Your task to perform on an android device: Add "bose soundlink" to the cart on walmart Image 0: 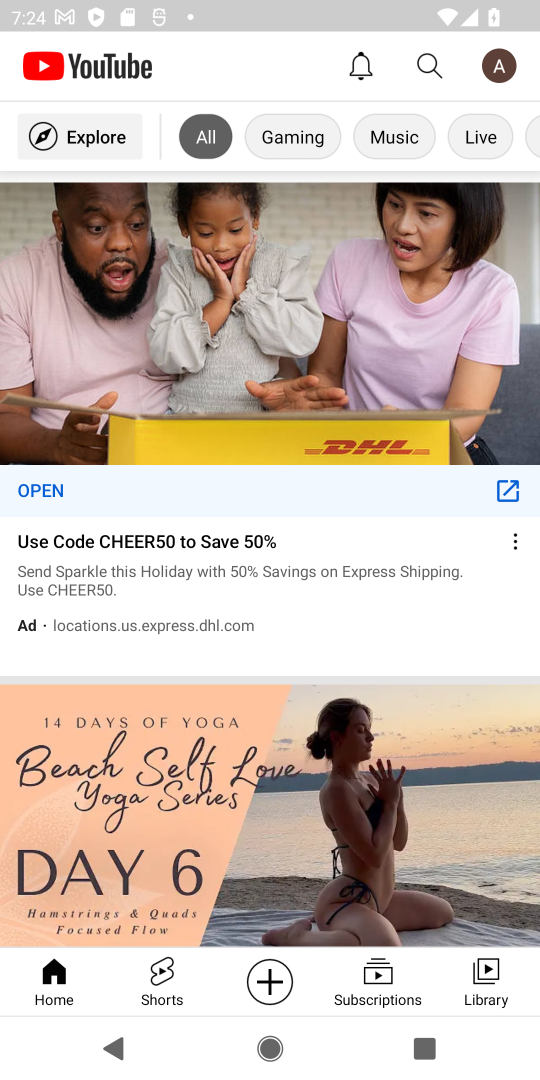
Step 0: press home button
Your task to perform on an android device: Add "bose soundlink" to the cart on walmart Image 1: 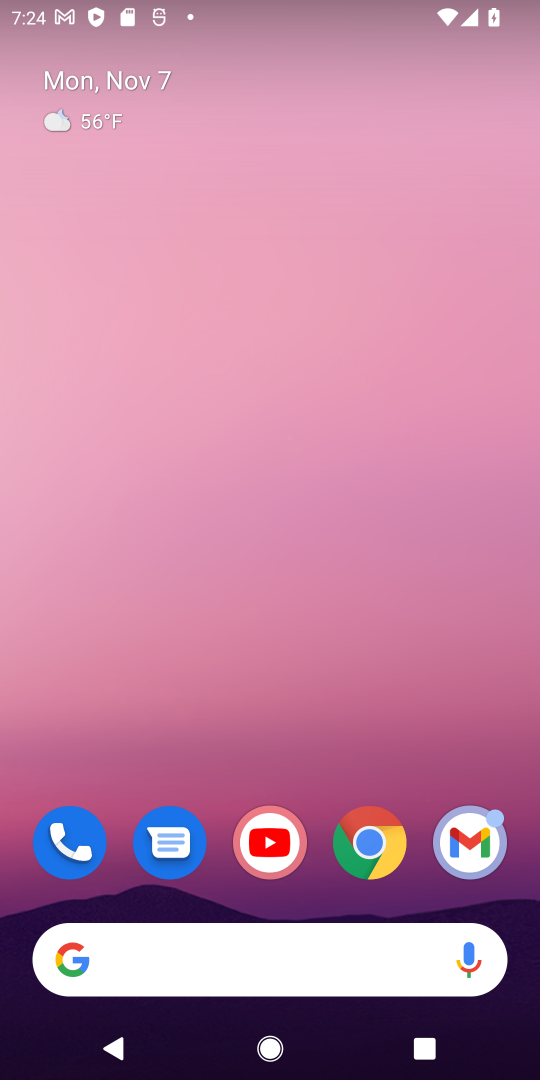
Step 1: click (371, 844)
Your task to perform on an android device: Add "bose soundlink" to the cart on walmart Image 2: 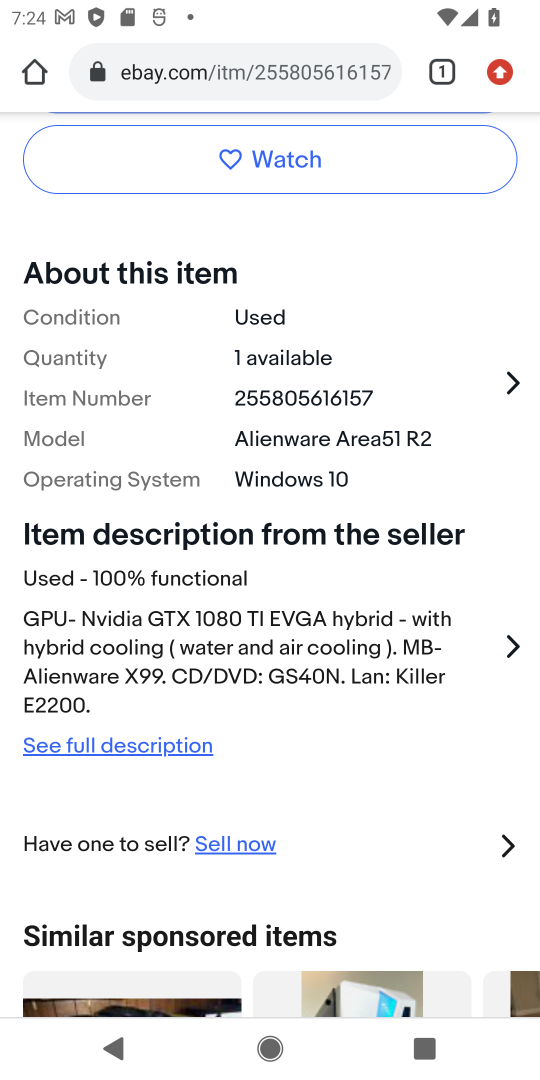
Step 2: click (279, 57)
Your task to perform on an android device: Add "bose soundlink" to the cart on walmart Image 3: 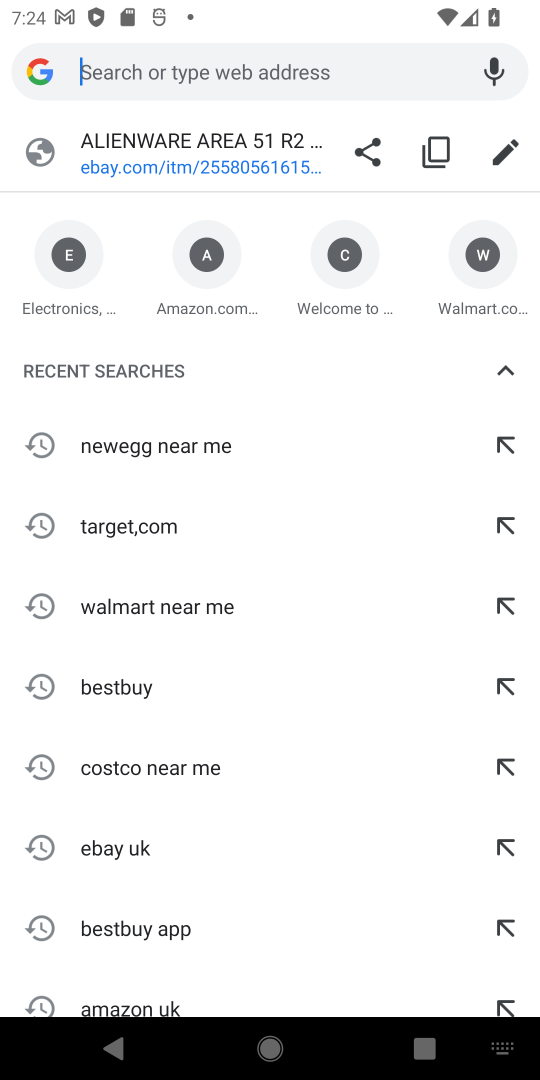
Step 3: click (450, 306)
Your task to perform on an android device: Add "bose soundlink" to the cart on walmart Image 4: 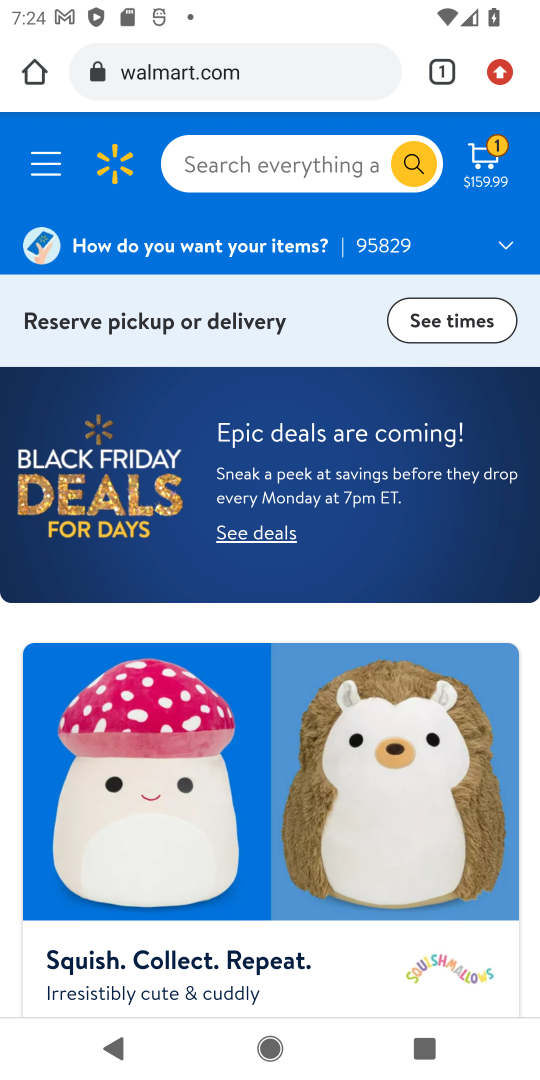
Step 4: click (231, 163)
Your task to perform on an android device: Add "bose soundlink" to the cart on walmart Image 5: 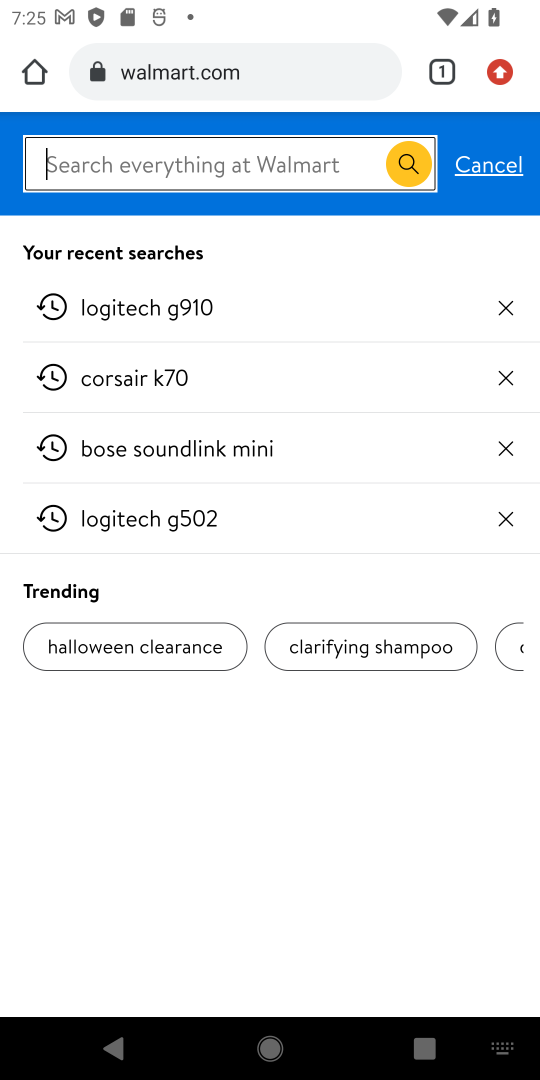
Step 5: type "bose soundlink"
Your task to perform on an android device: Add "bose soundlink" to the cart on walmart Image 6: 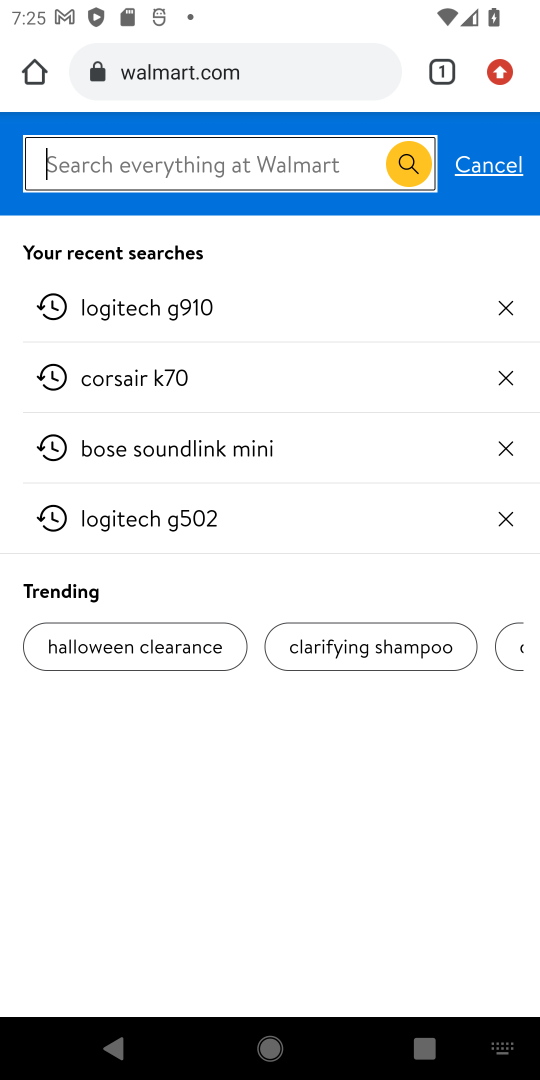
Step 6: press enter
Your task to perform on an android device: Add "bose soundlink" to the cart on walmart Image 7: 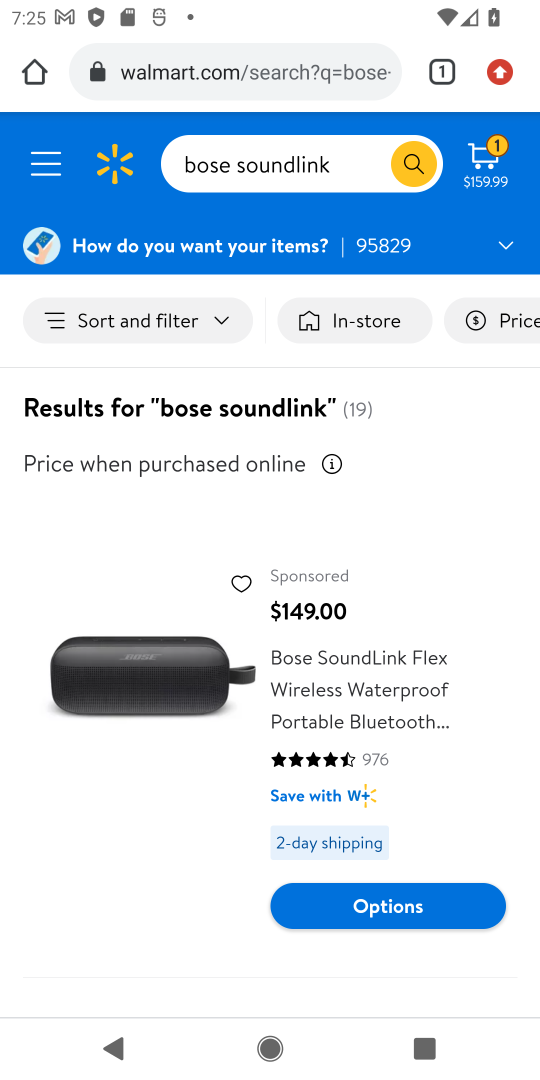
Step 7: click (289, 675)
Your task to perform on an android device: Add "bose soundlink" to the cart on walmart Image 8: 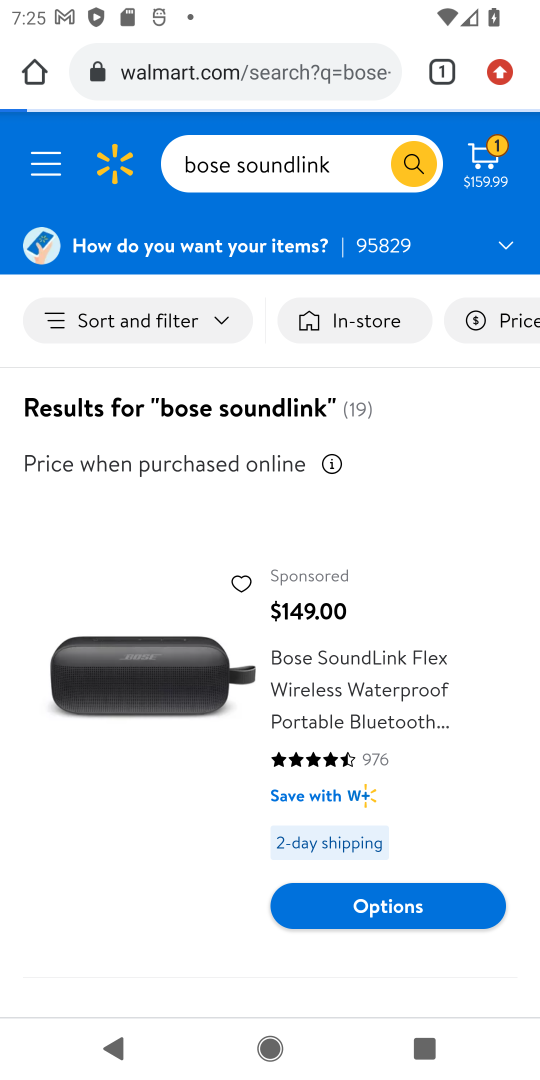
Step 8: click (339, 666)
Your task to perform on an android device: Add "bose soundlink" to the cart on walmart Image 9: 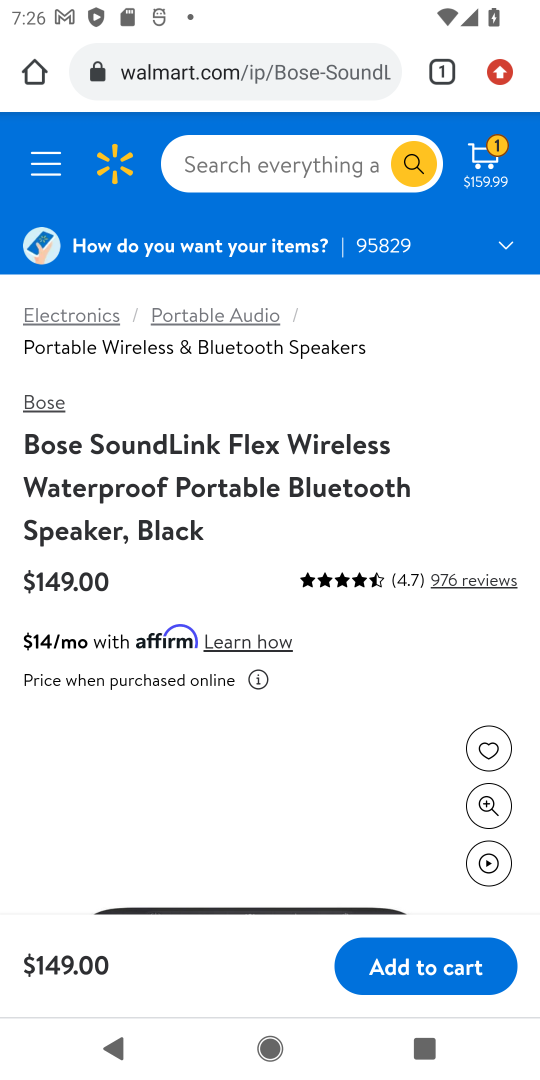
Step 9: click (414, 970)
Your task to perform on an android device: Add "bose soundlink" to the cart on walmart Image 10: 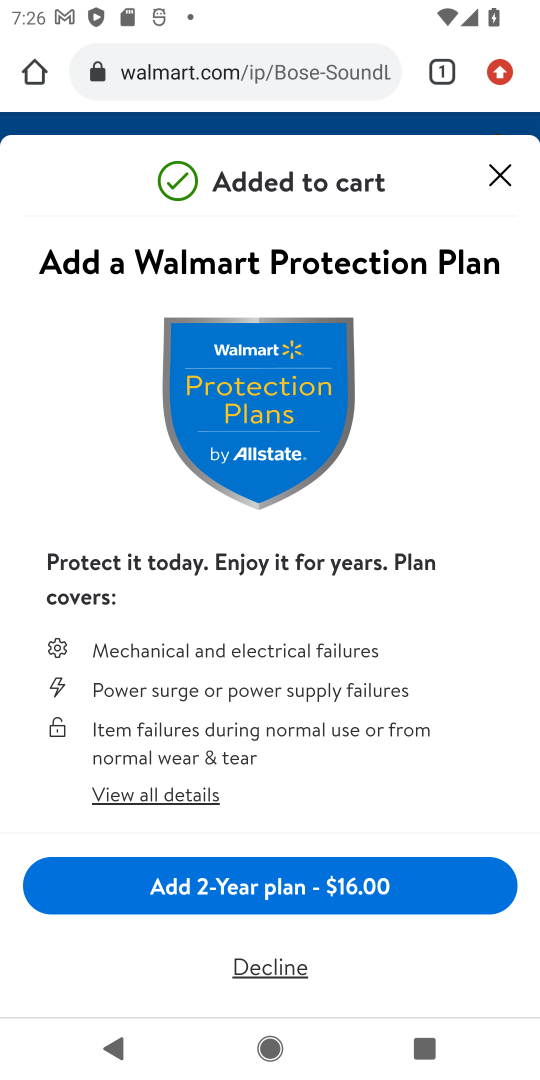
Step 10: click (505, 169)
Your task to perform on an android device: Add "bose soundlink" to the cart on walmart Image 11: 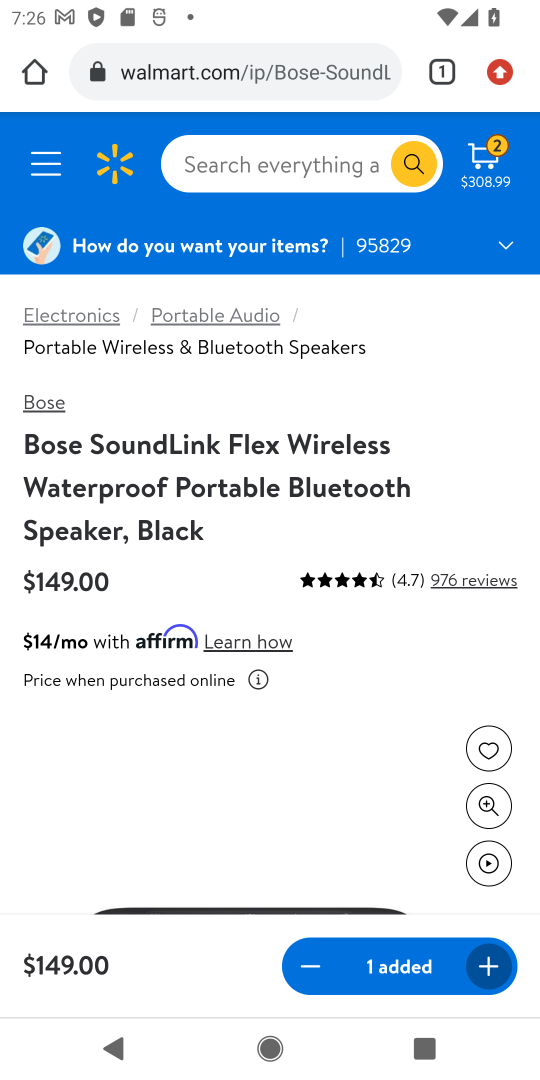
Step 11: click (484, 152)
Your task to perform on an android device: Add "bose soundlink" to the cart on walmart Image 12: 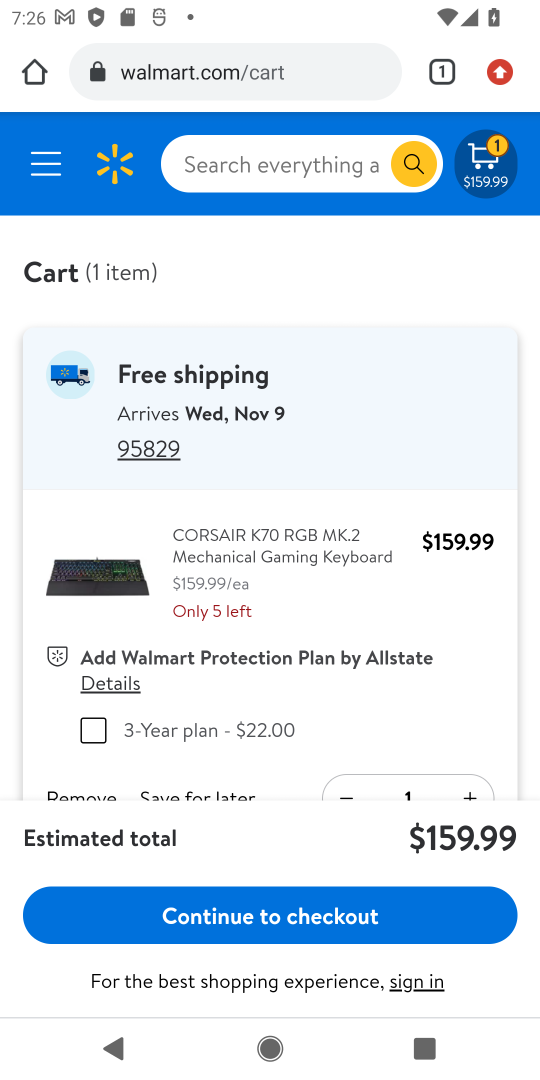
Step 12: drag from (340, 725) to (446, 384)
Your task to perform on an android device: Add "bose soundlink" to the cart on walmart Image 13: 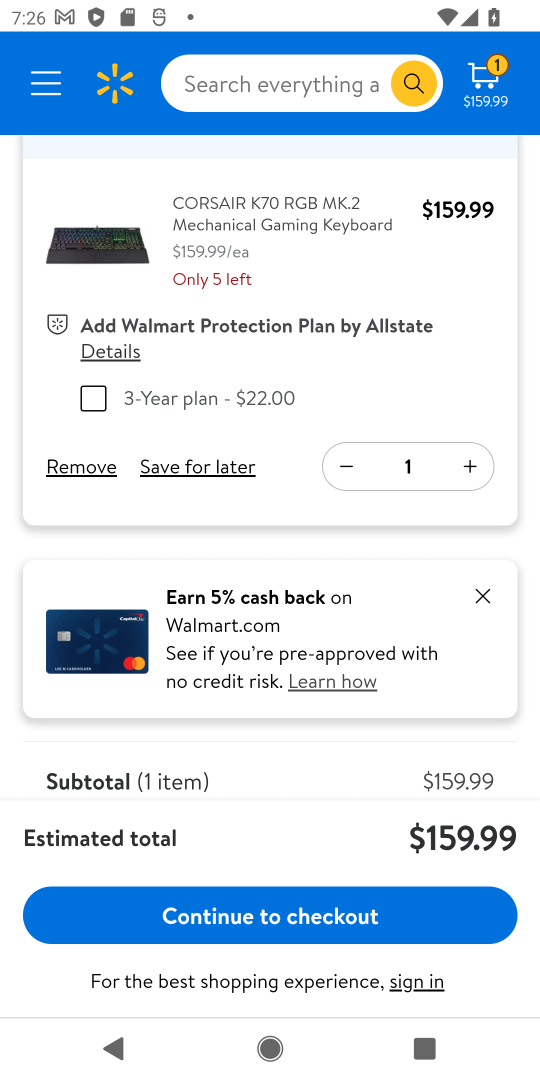
Step 13: click (102, 460)
Your task to perform on an android device: Add "bose soundlink" to the cart on walmart Image 14: 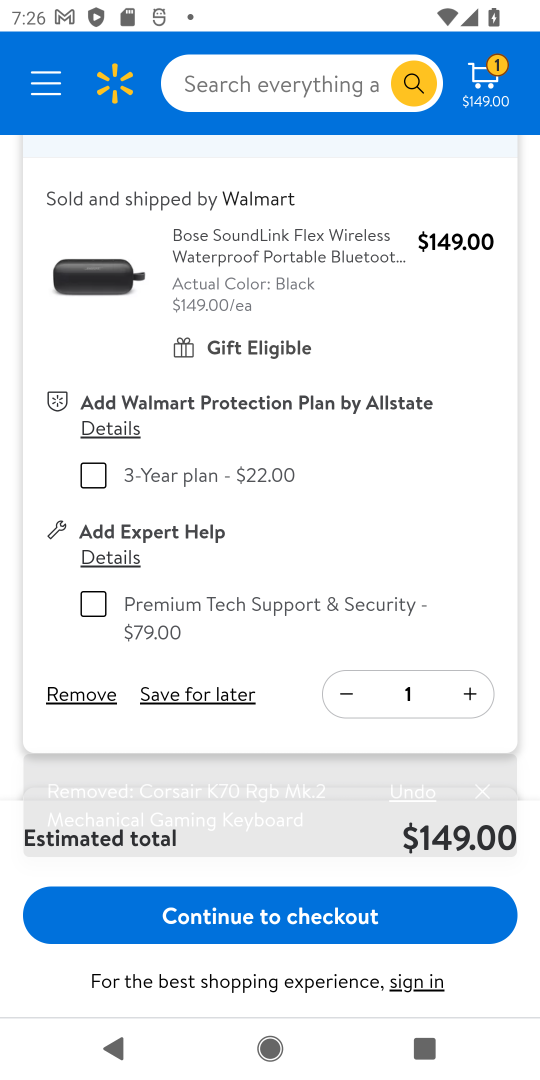
Step 14: task complete